Your task to perform on an android device: Go to eBay Image 0: 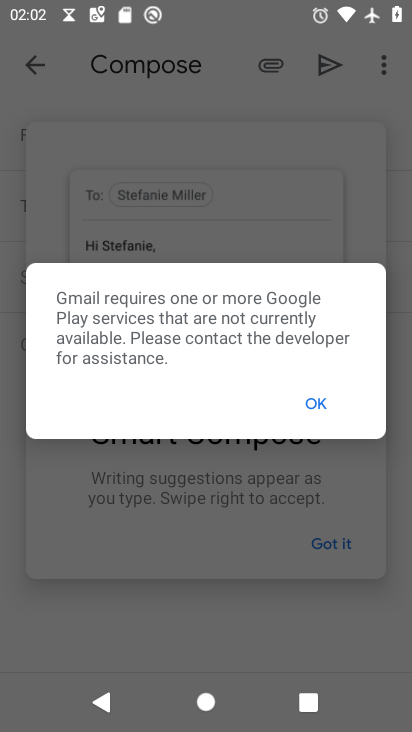
Step 0: press home button
Your task to perform on an android device: Go to eBay Image 1: 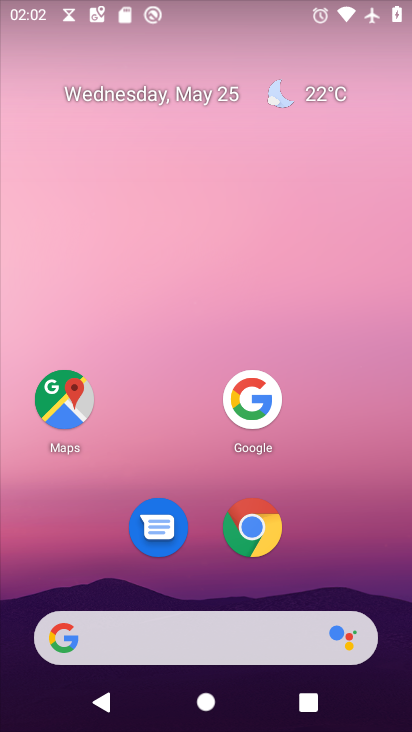
Step 1: click (240, 538)
Your task to perform on an android device: Go to eBay Image 2: 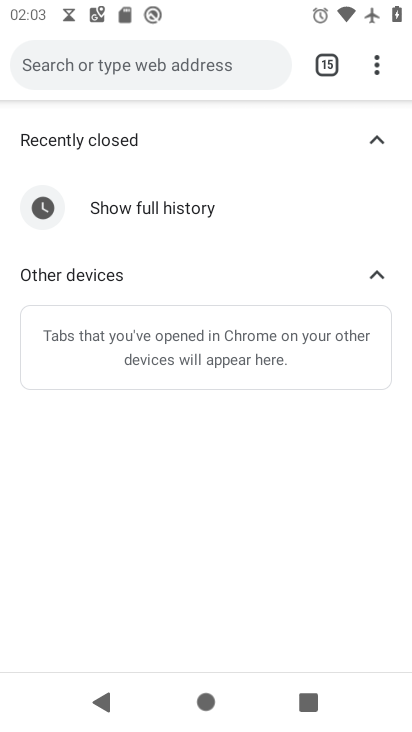
Step 2: drag from (375, 66) to (243, 133)
Your task to perform on an android device: Go to eBay Image 3: 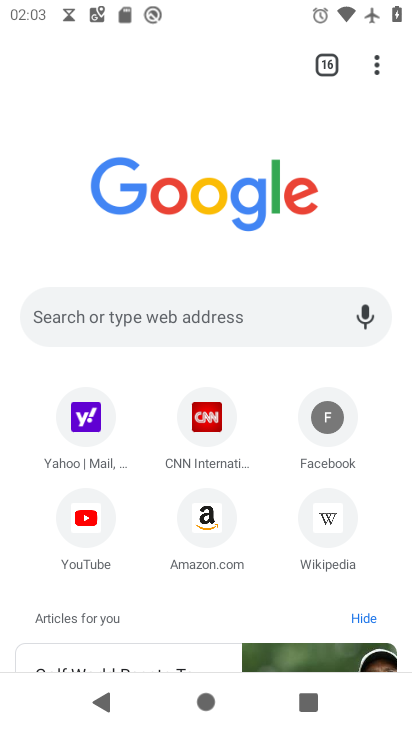
Step 3: click (146, 323)
Your task to perform on an android device: Go to eBay Image 4: 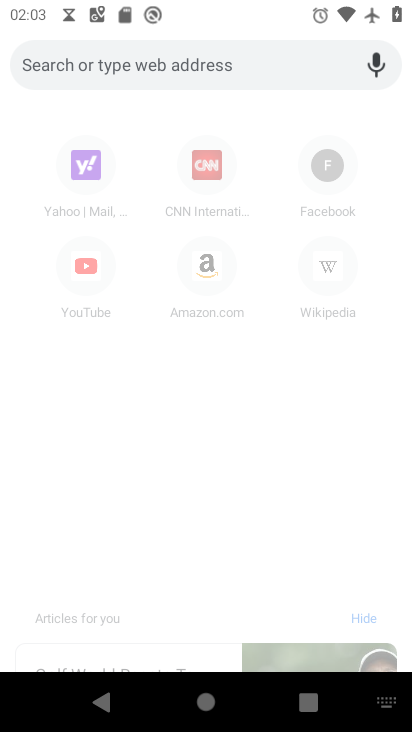
Step 4: type "ebay"
Your task to perform on an android device: Go to eBay Image 5: 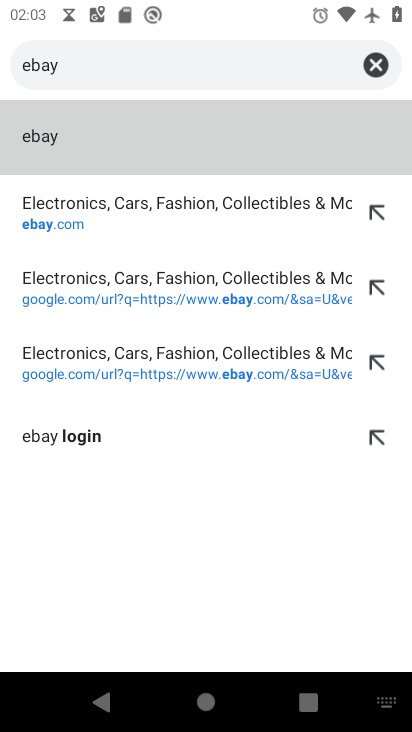
Step 5: click (137, 156)
Your task to perform on an android device: Go to eBay Image 6: 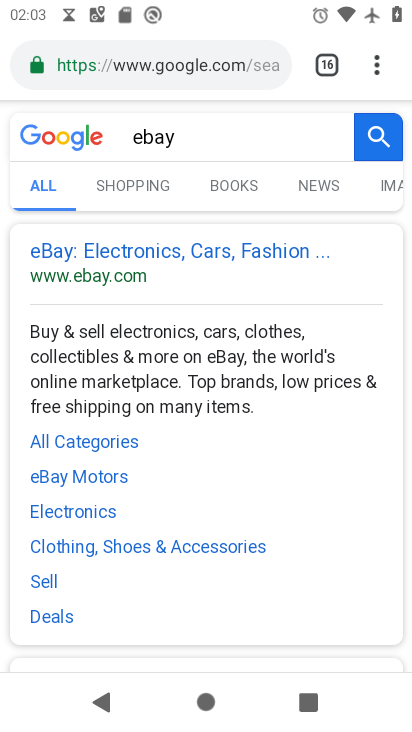
Step 6: click (153, 253)
Your task to perform on an android device: Go to eBay Image 7: 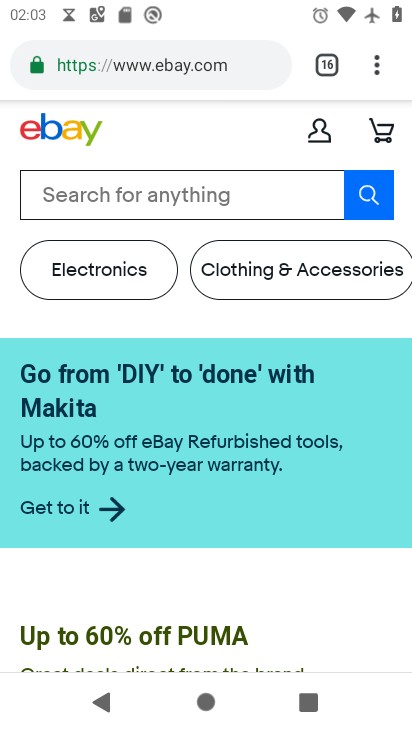
Step 7: task complete